Your task to perform on an android device: Clear the cart on target. Add logitech g933 to the cart on target, then select checkout. Image 0: 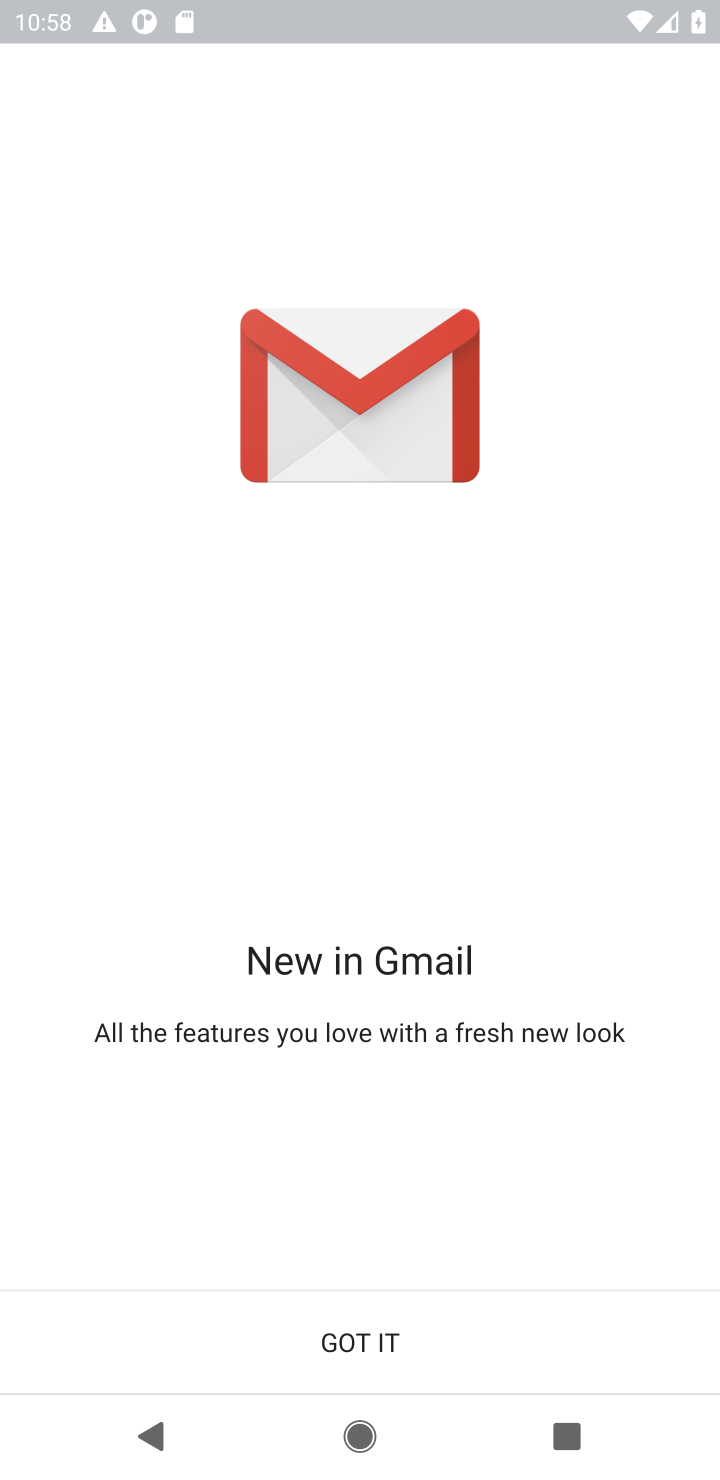
Step 0: press home button
Your task to perform on an android device: Clear the cart on target. Add logitech g933 to the cart on target, then select checkout. Image 1: 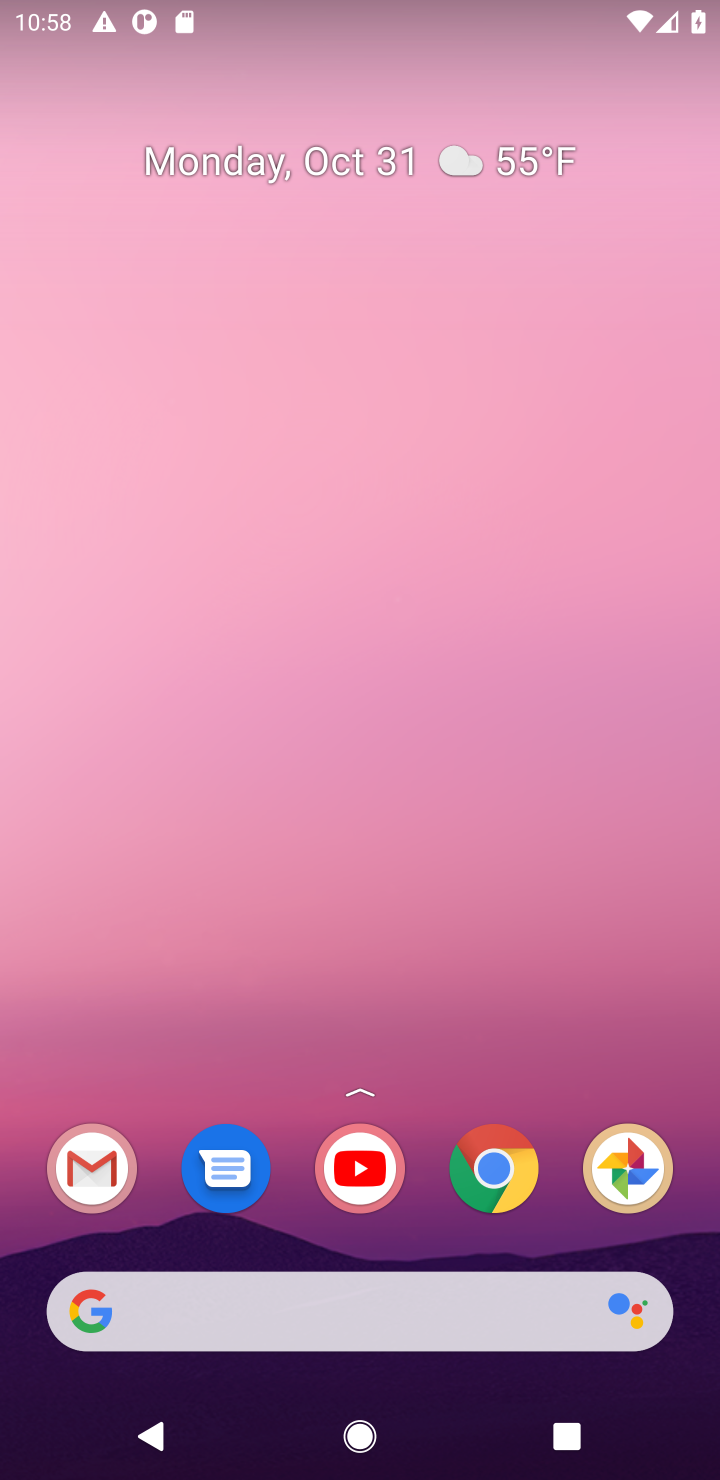
Step 1: click (475, 1177)
Your task to perform on an android device: Clear the cart on target. Add logitech g933 to the cart on target, then select checkout. Image 2: 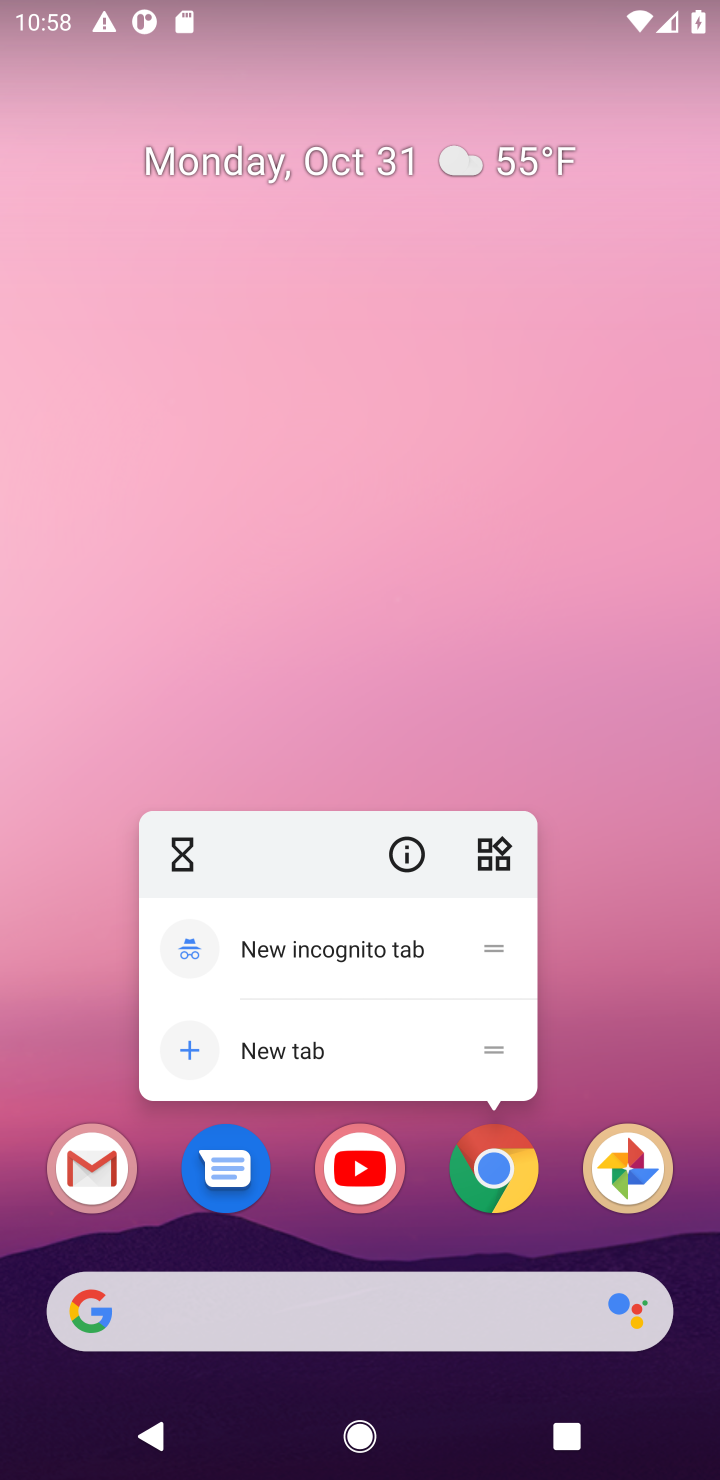
Step 2: click (504, 1174)
Your task to perform on an android device: Clear the cart on target. Add logitech g933 to the cart on target, then select checkout. Image 3: 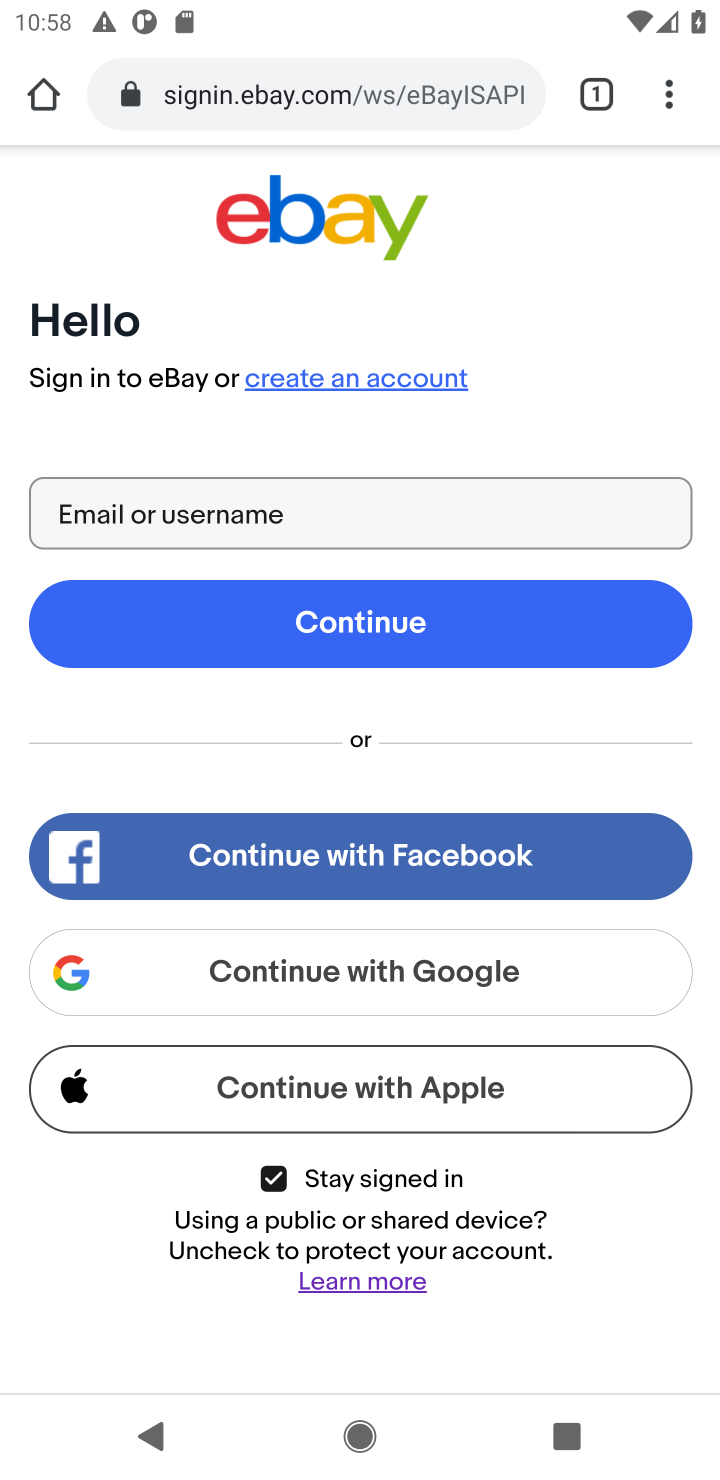
Step 3: click (319, 105)
Your task to perform on an android device: Clear the cart on target. Add logitech g933 to the cart on target, then select checkout. Image 4: 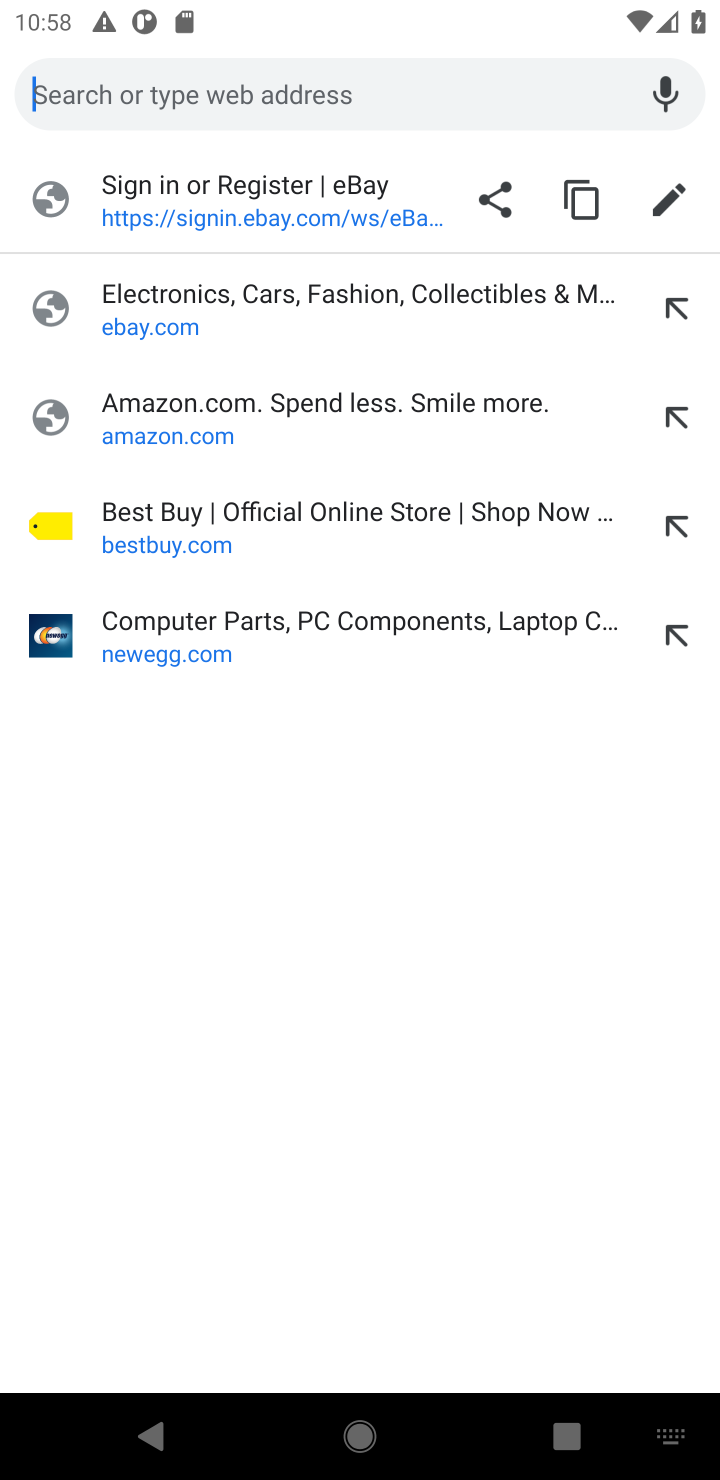
Step 4: type "target"
Your task to perform on an android device: Clear the cart on target. Add logitech g933 to the cart on target, then select checkout. Image 5: 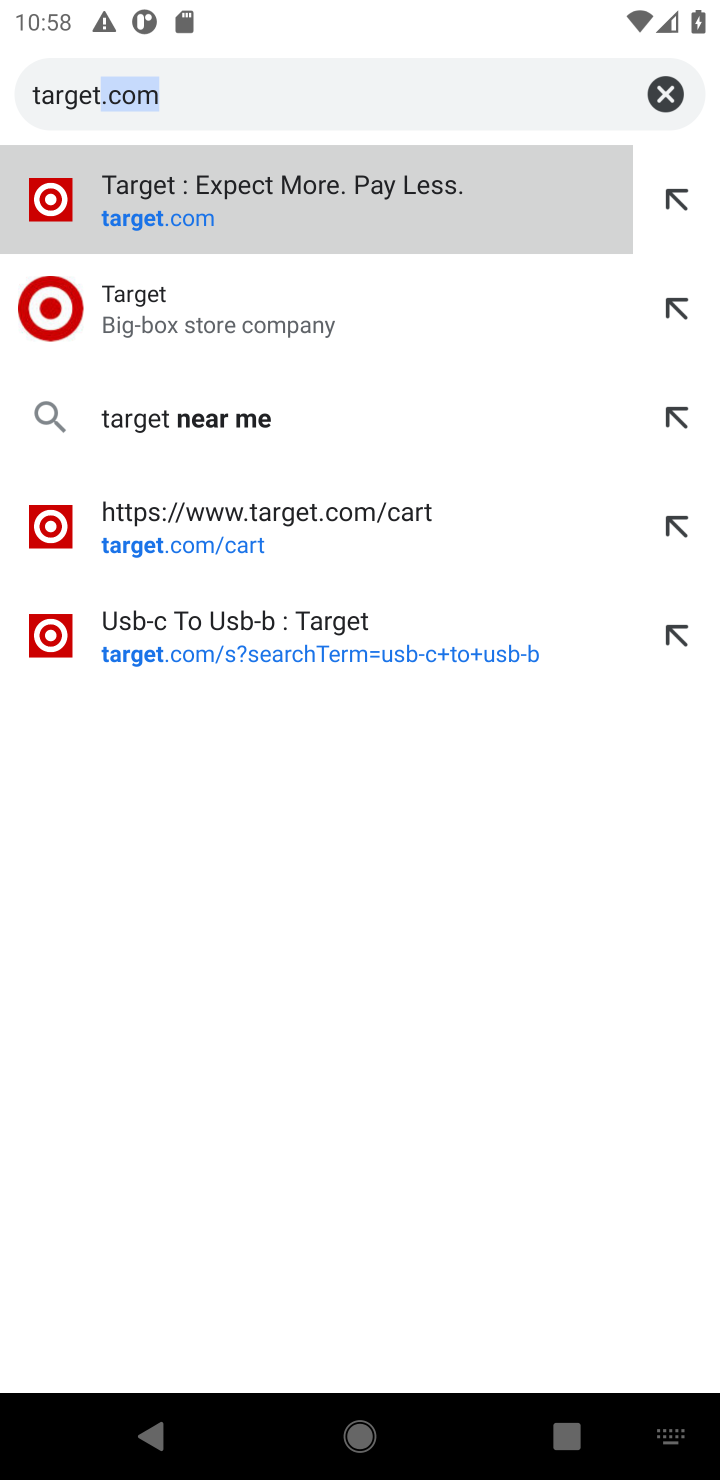
Step 5: press enter
Your task to perform on an android device: Clear the cart on target. Add logitech g933 to the cart on target, then select checkout. Image 6: 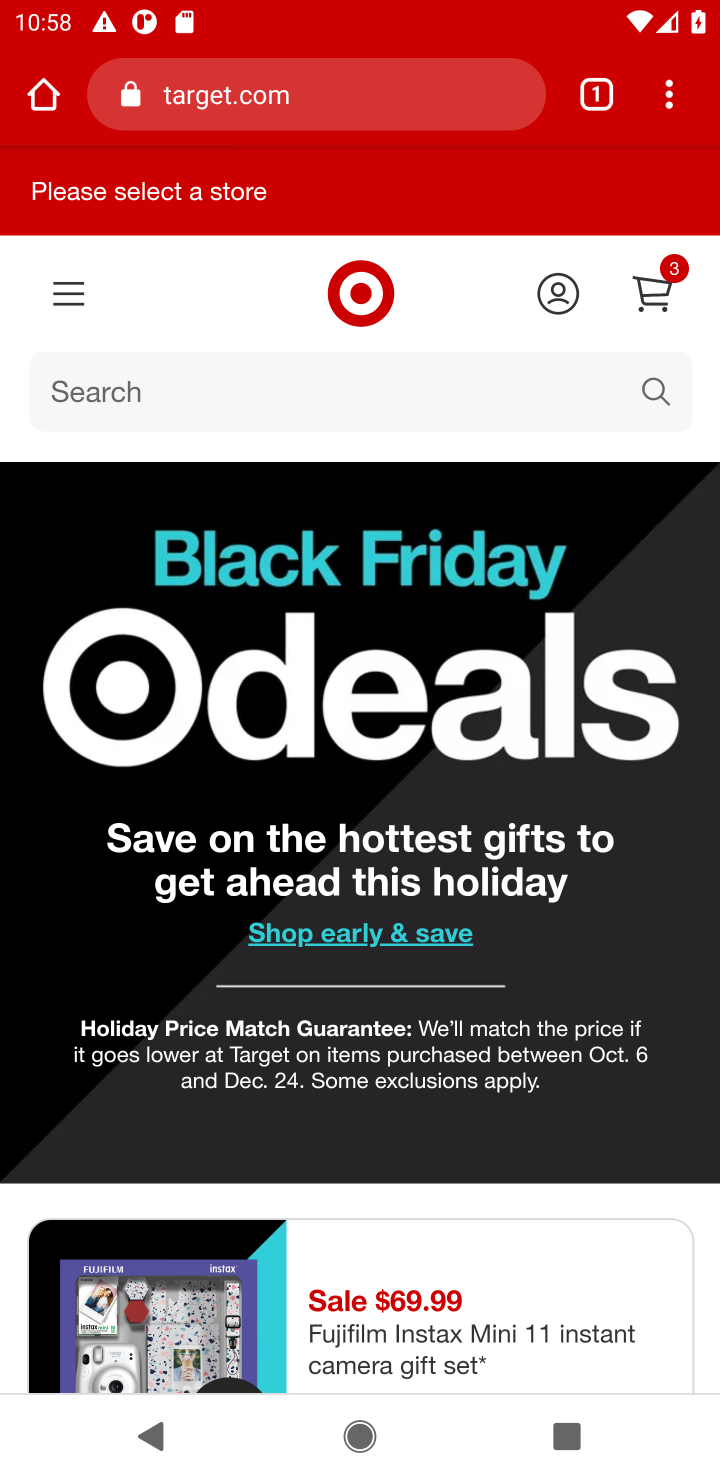
Step 6: click (279, 390)
Your task to perform on an android device: Clear the cart on target. Add logitech g933 to the cart on target, then select checkout. Image 7: 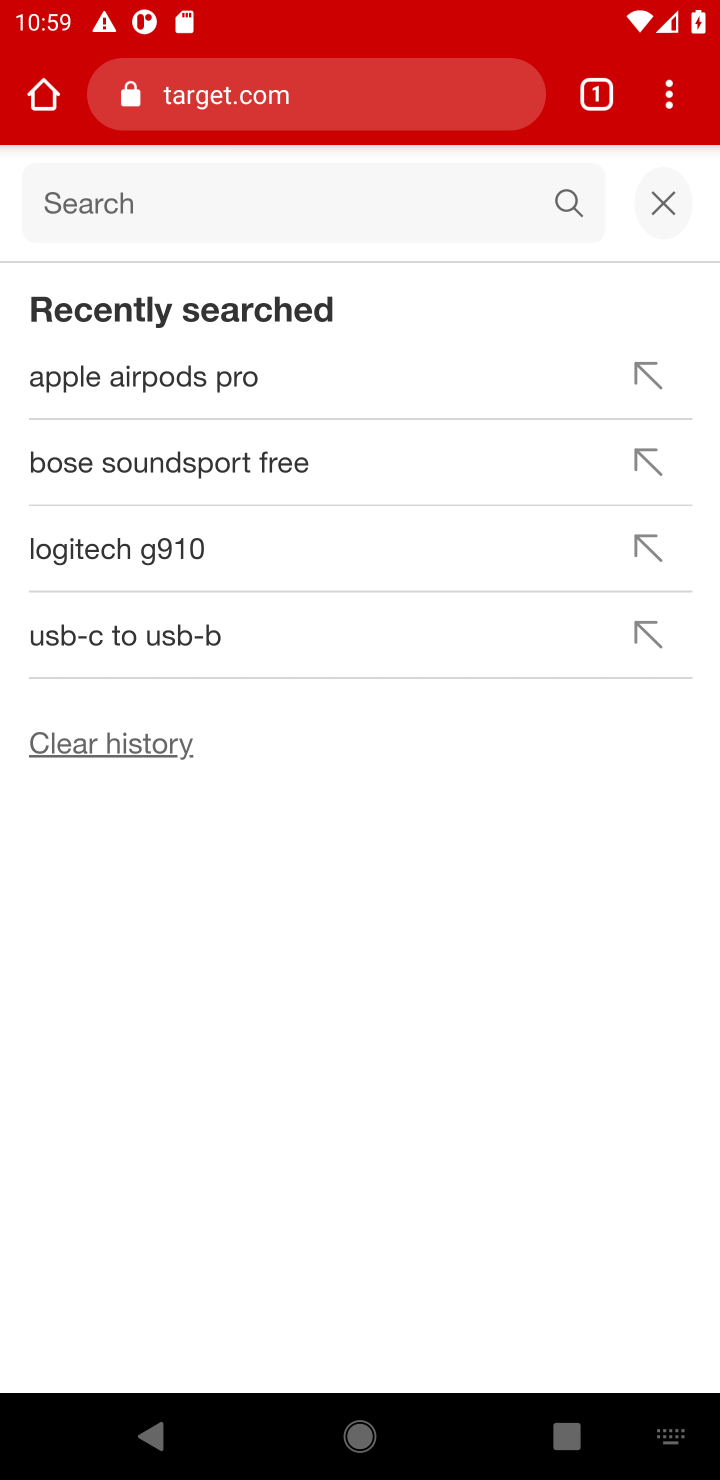
Step 7: type "logitech g933"
Your task to perform on an android device: Clear the cart on target. Add logitech g933 to the cart on target, then select checkout. Image 8: 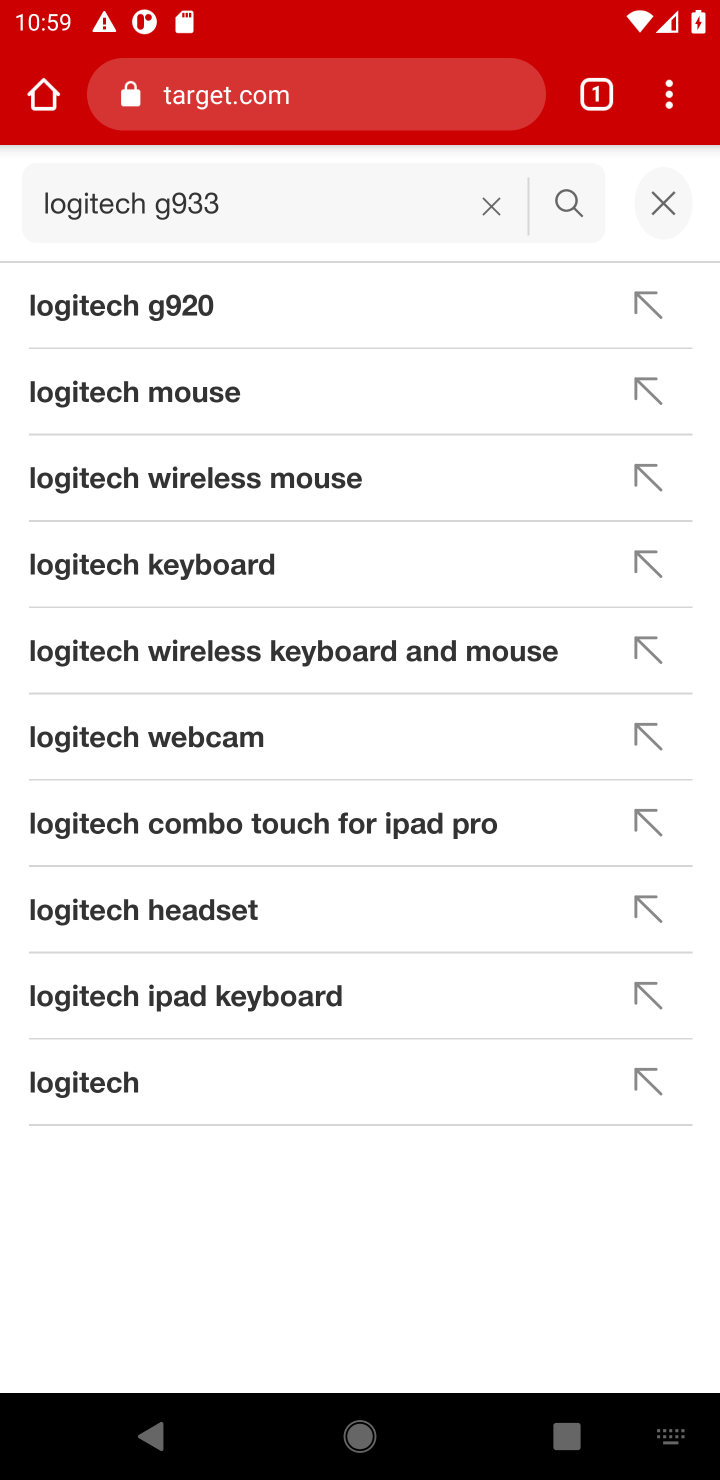
Step 8: press enter
Your task to perform on an android device: Clear the cart on target. Add logitech g933 to the cart on target, then select checkout. Image 9: 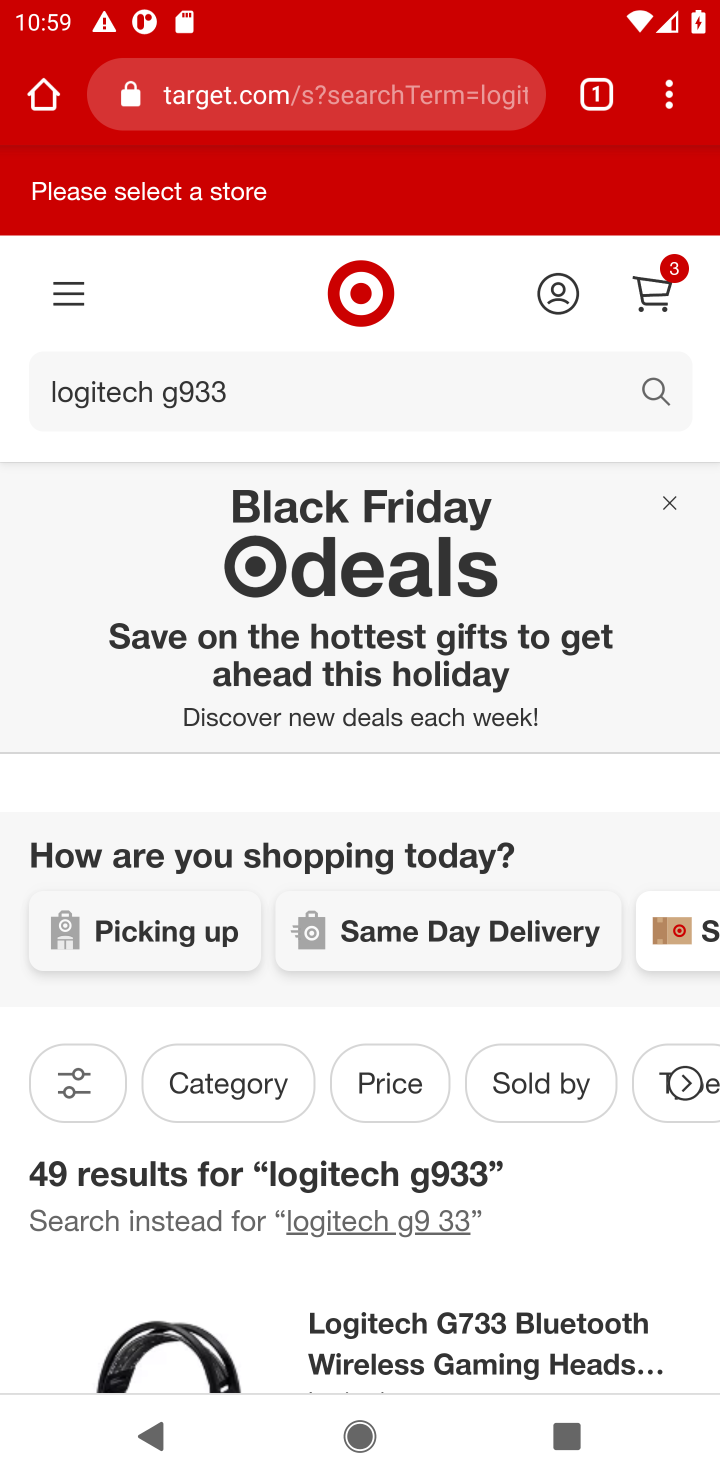
Step 9: drag from (600, 1152) to (428, 230)
Your task to perform on an android device: Clear the cart on target. Add logitech g933 to the cart on target, then select checkout. Image 10: 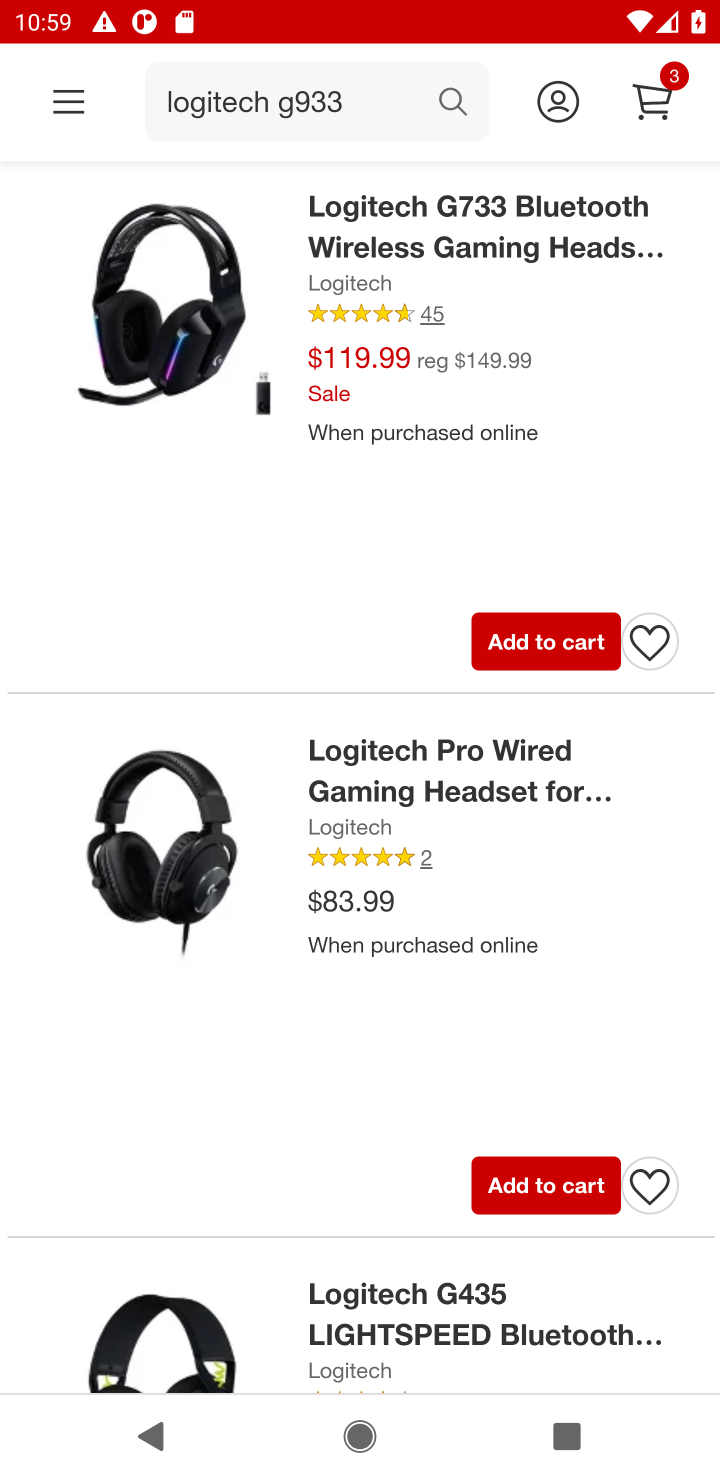
Step 10: drag from (318, 1132) to (326, 715)
Your task to perform on an android device: Clear the cart on target. Add logitech g933 to the cart on target, then select checkout. Image 11: 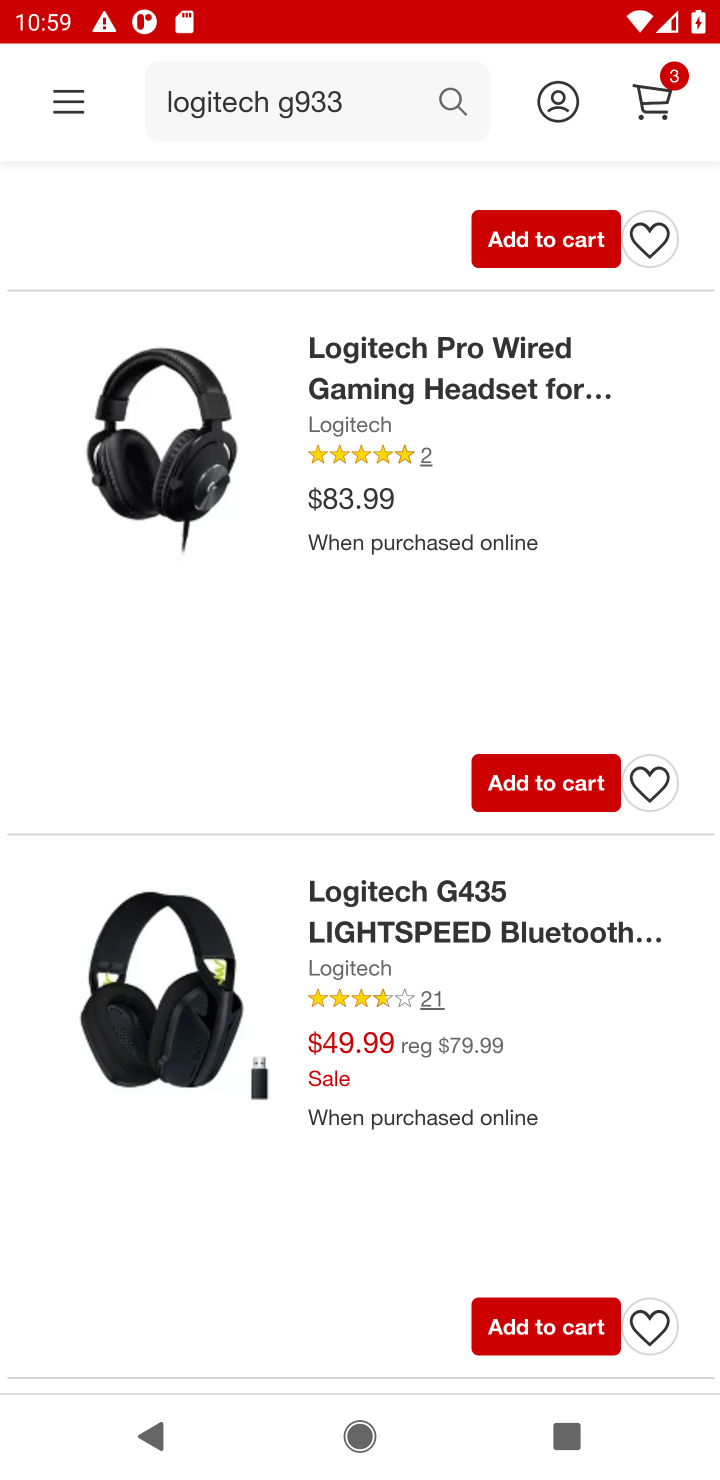
Step 11: drag from (356, 1114) to (429, 558)
Your task to perform on an android device: Clear the cart on target. Add logitech g933 to the cart on target, then select checkout. Image 12: 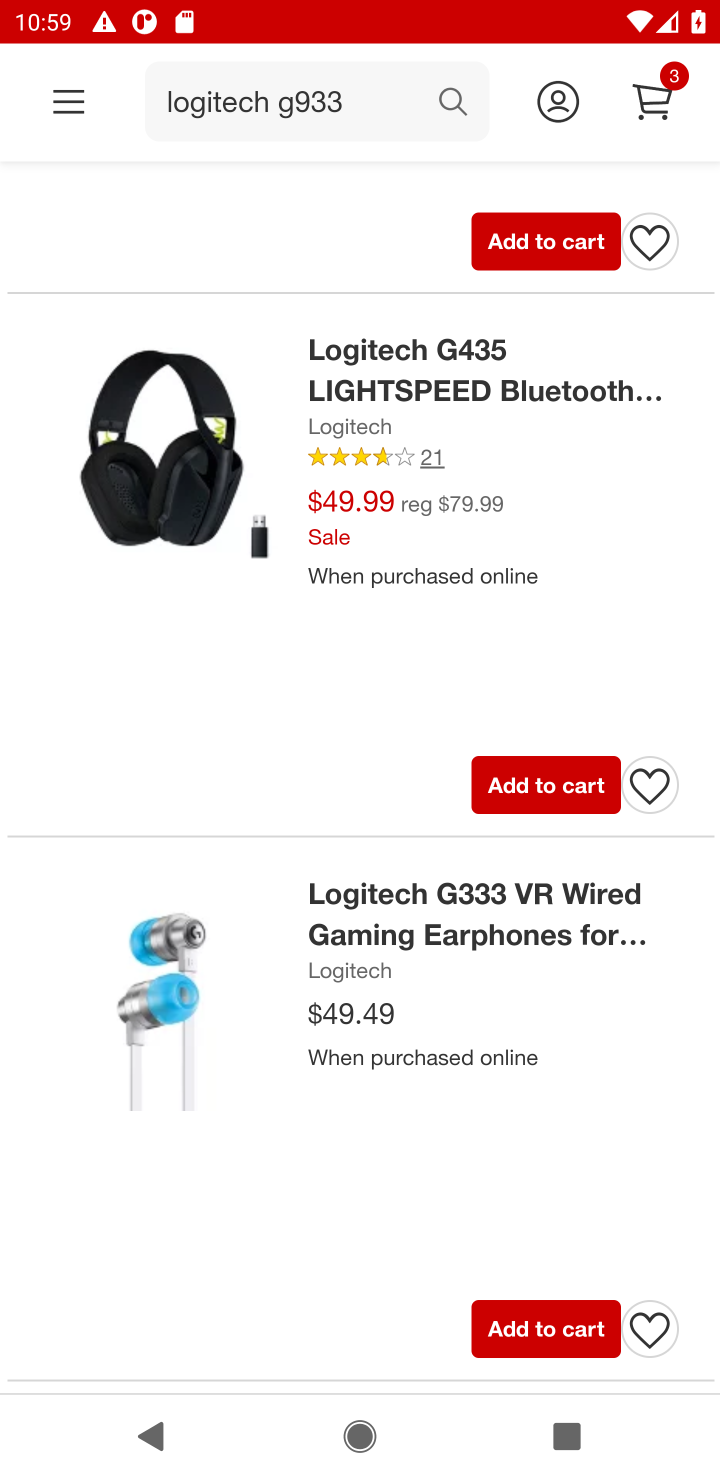
Step 12: drag from (392, 1169) to (446, 666)
Your task to perform on an android device: Clear the cart on target. Add logitech g933 to the cart on target, then select checkout. Image 13: 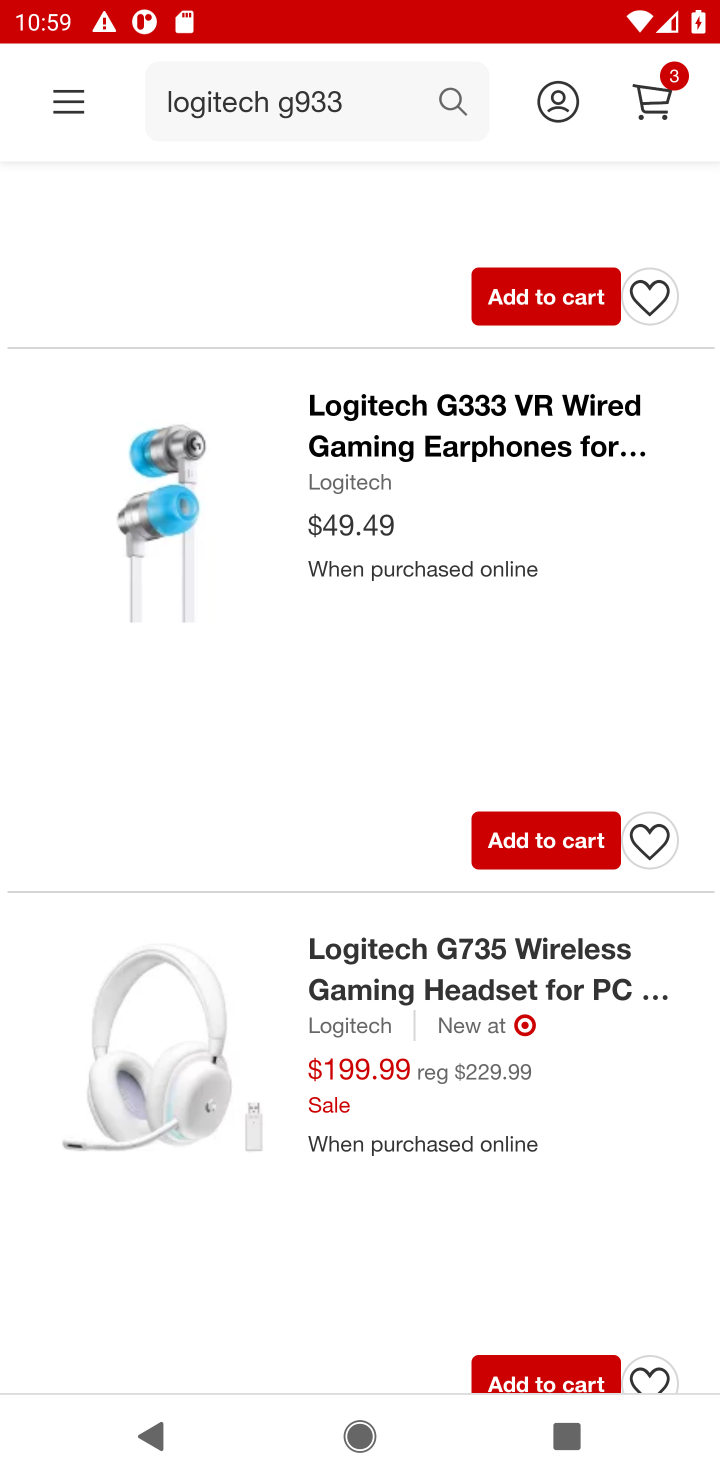
Step 13: drag from (410, 1234) to (382, 521)
Your task to perform on an android device: Clear the cart on target. Add logitech g933 to the cart on target, then select checkout. Image 14: 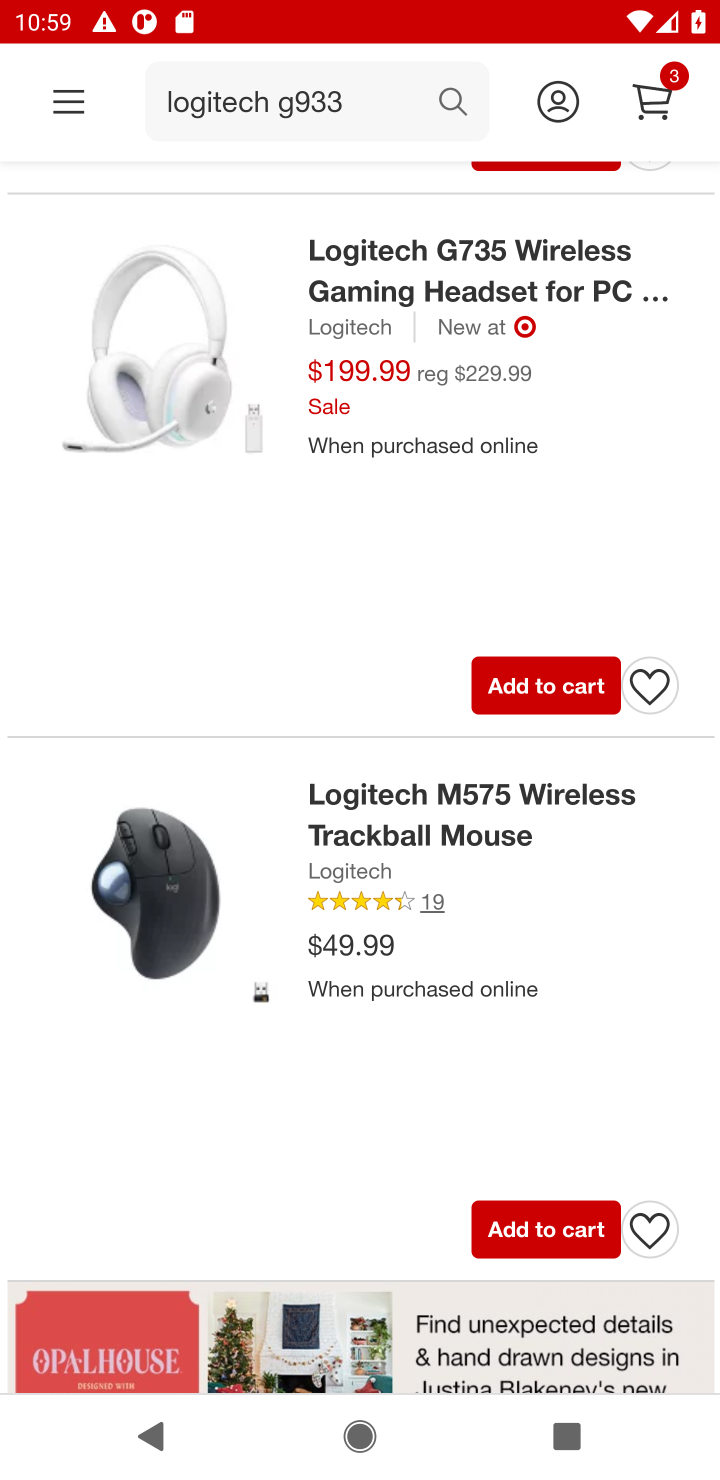
Step 14: drag from (361, 551) to (408, 1453)
Your task to perform on an android device: Clear the cart on target. Add logitech g933 to the cart on target, then select checkout. Image 15: 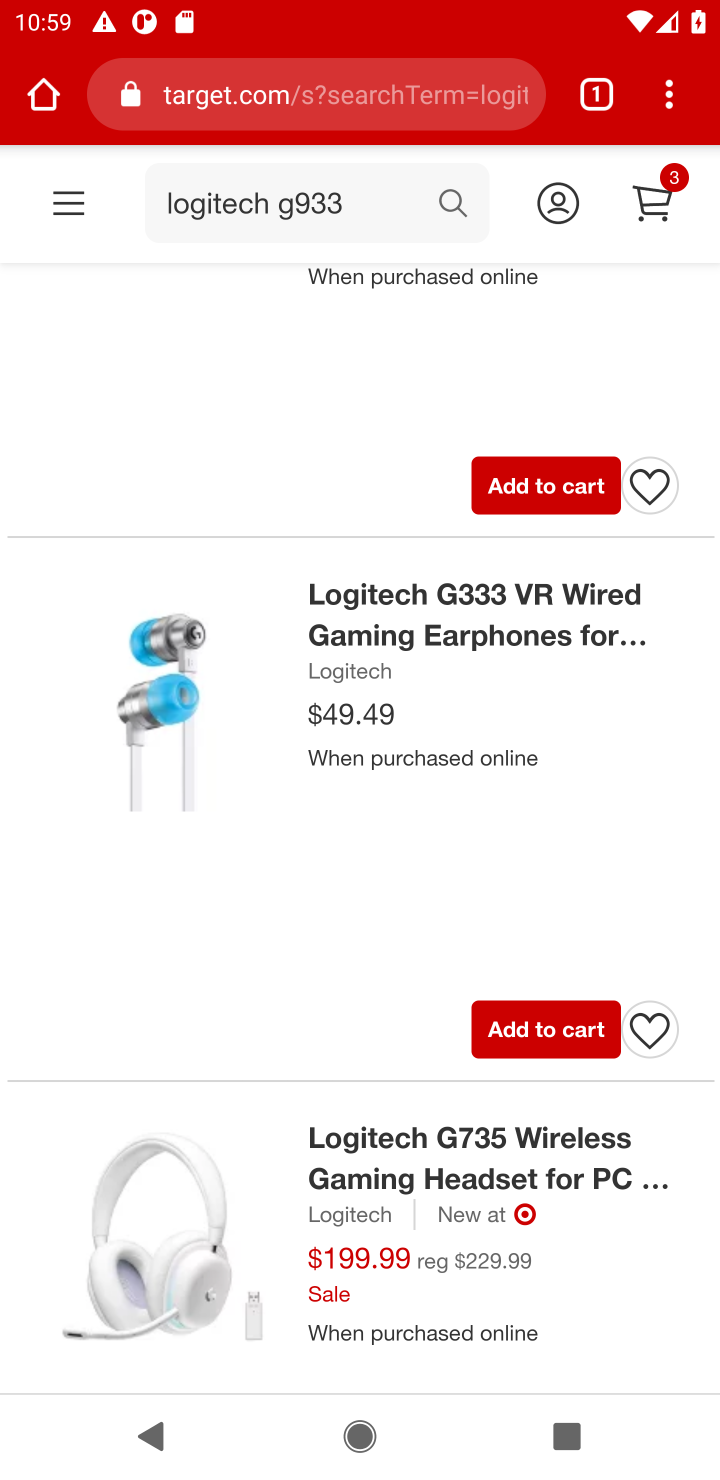
Step 15: drag from (289, 643) to (231, 1253)
Your task to perform on an android device: Clear the cart on target. Add logitech g933 to the cart on target, then select checkout. Image 16: 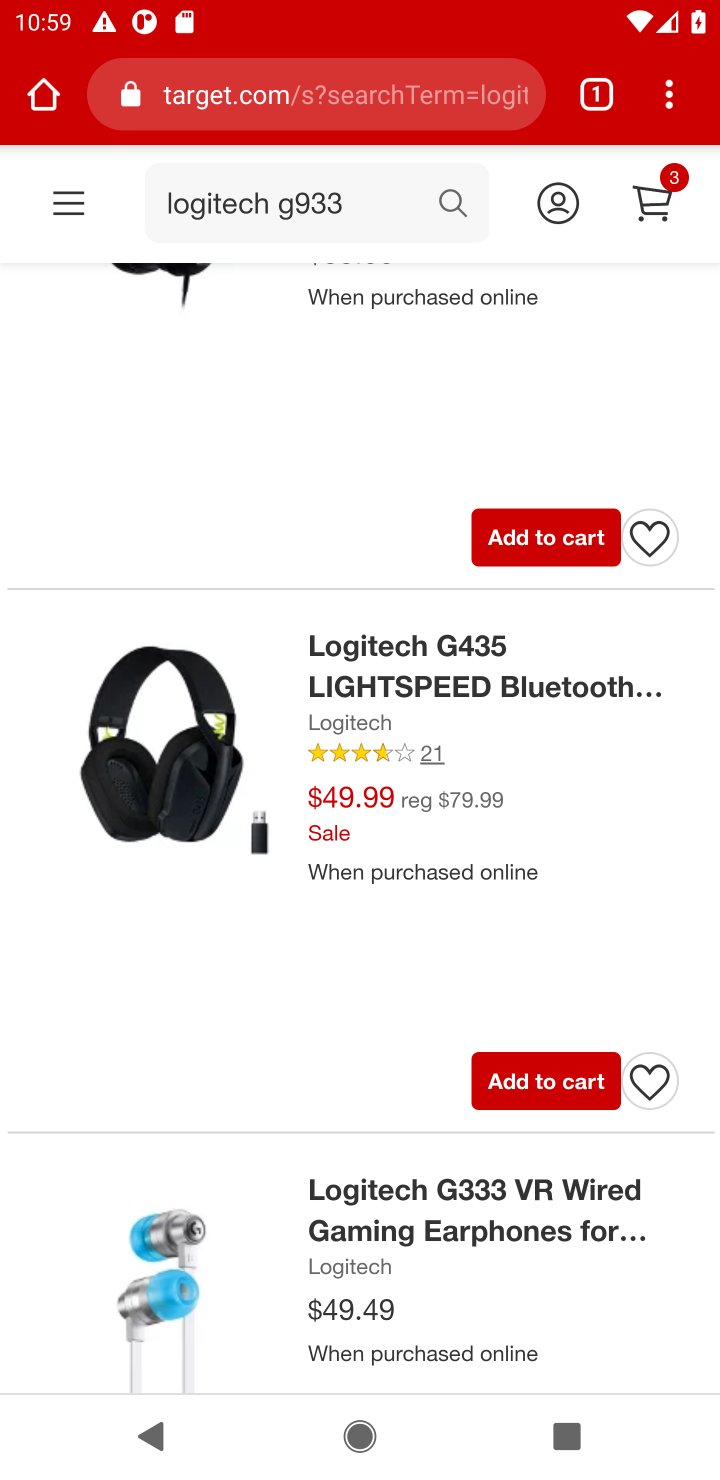
Step 16: drag from (412, 448) to (278, 1246)
Your task to perform on an android device: Clear the cart on target. Add logitech g933 to the cart on target, then select checkout. Image 17: 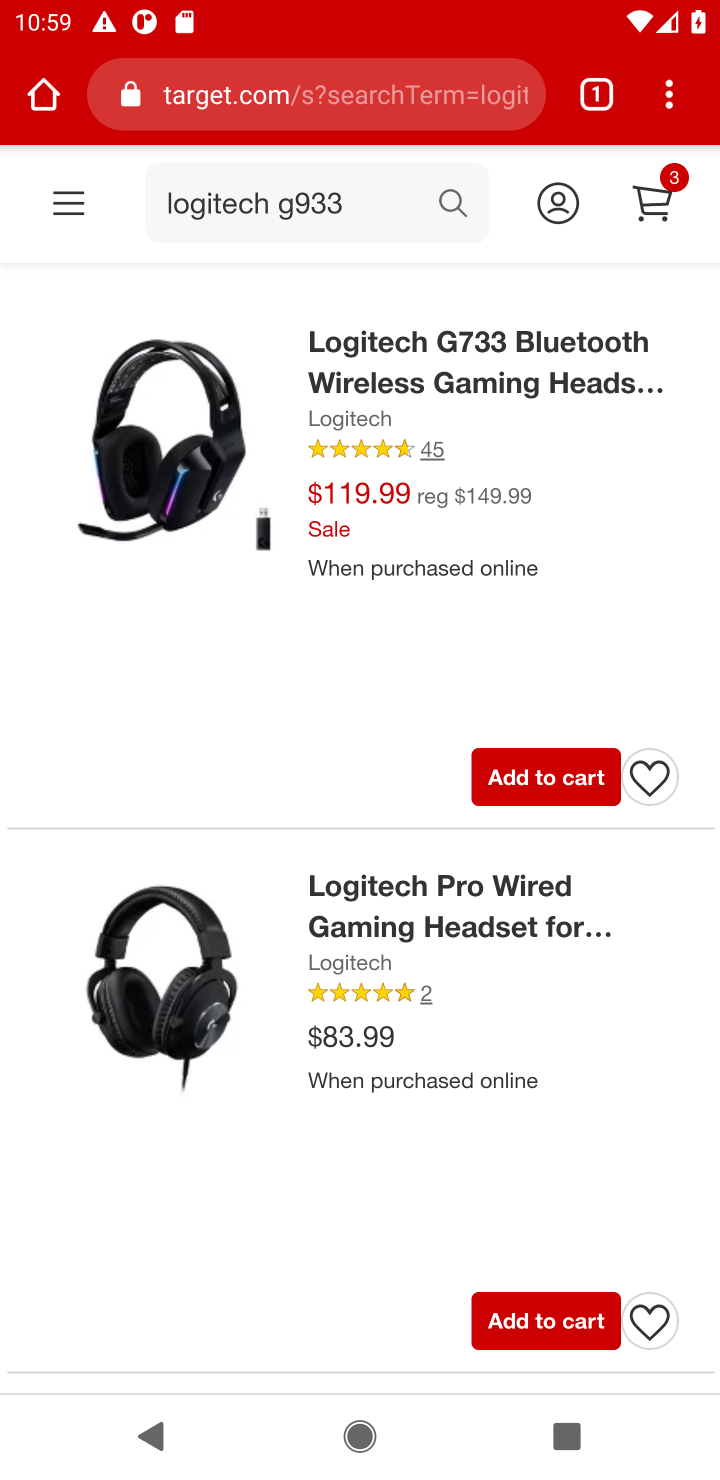
Step 17: drag from (422, 696) to (460, 1249)
Your task to perform on an android device: Clear the cart on target. Add logitech g933 to the cart on target, then select checkout. Image 18: 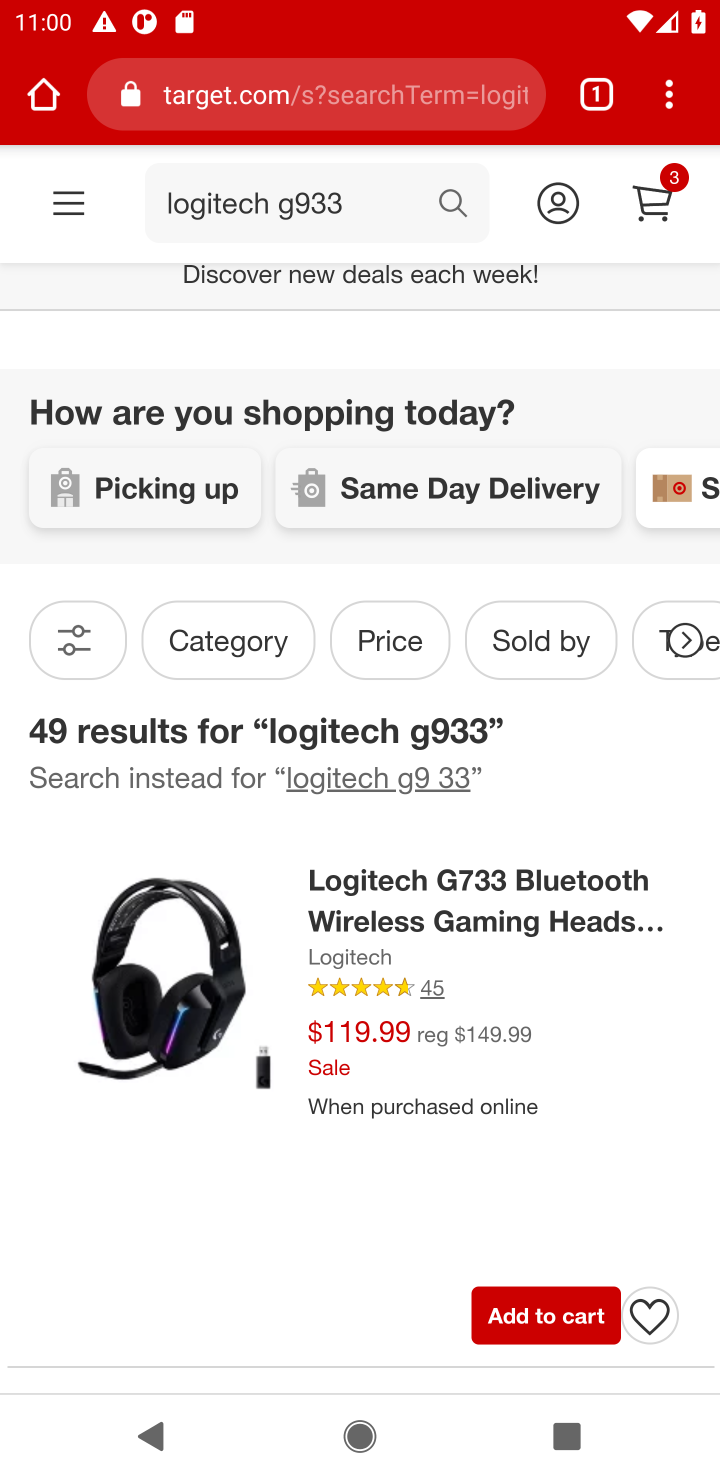
Step 18: click (414, 778)
Your task to perform on an android device: Clear the cart on target. Add logitech g933 to the cart on target, then select checkout. Image 19: 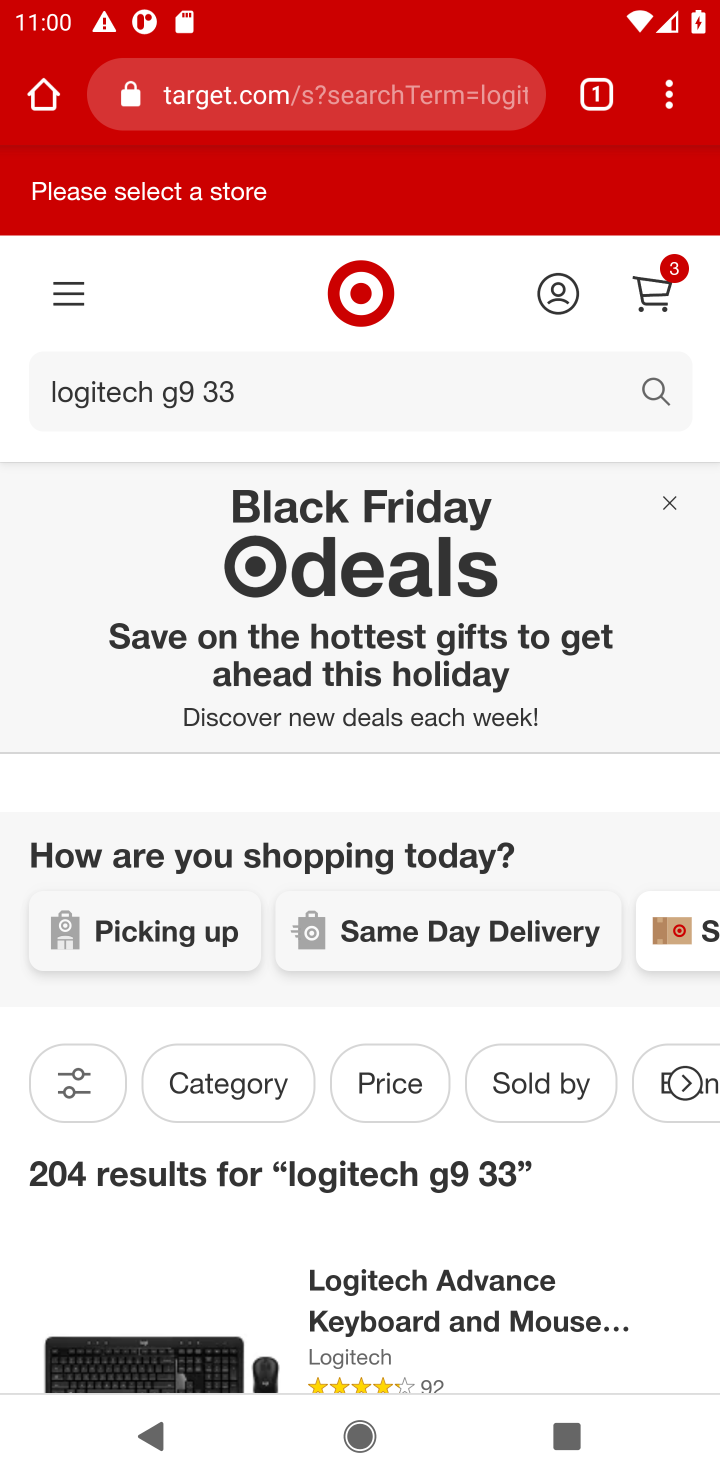
Step 19: drag from (578, 1225) to (489, 854)
Your task to perform on an android device: Clear the cart on target. Add logitech g933 to the cart on target, then select checkout. Image 20: 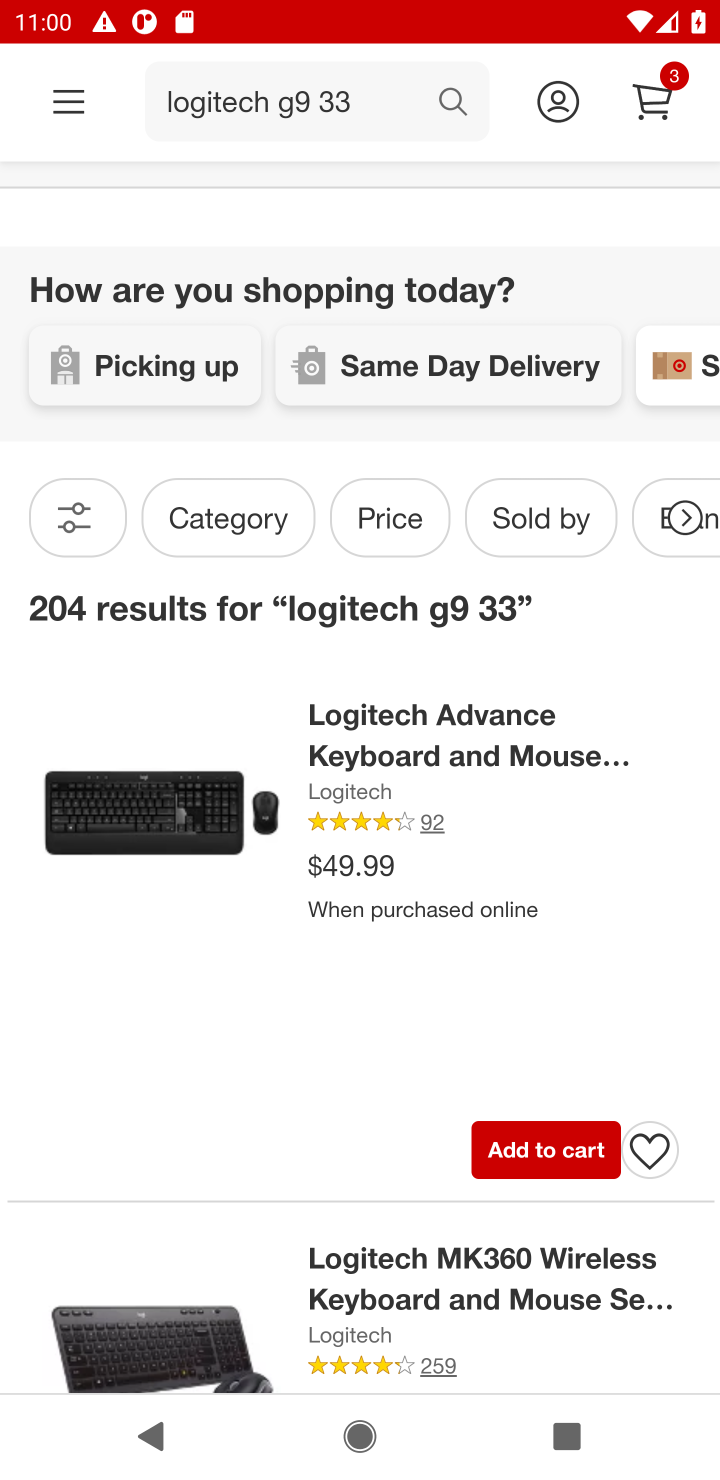
Step 20: drag from (596, 1272) to (515, 833)
Your task to perform on an android device: Clear the cart on target. Add logitech g933 to the cart on target, then select checkout. Image 21: 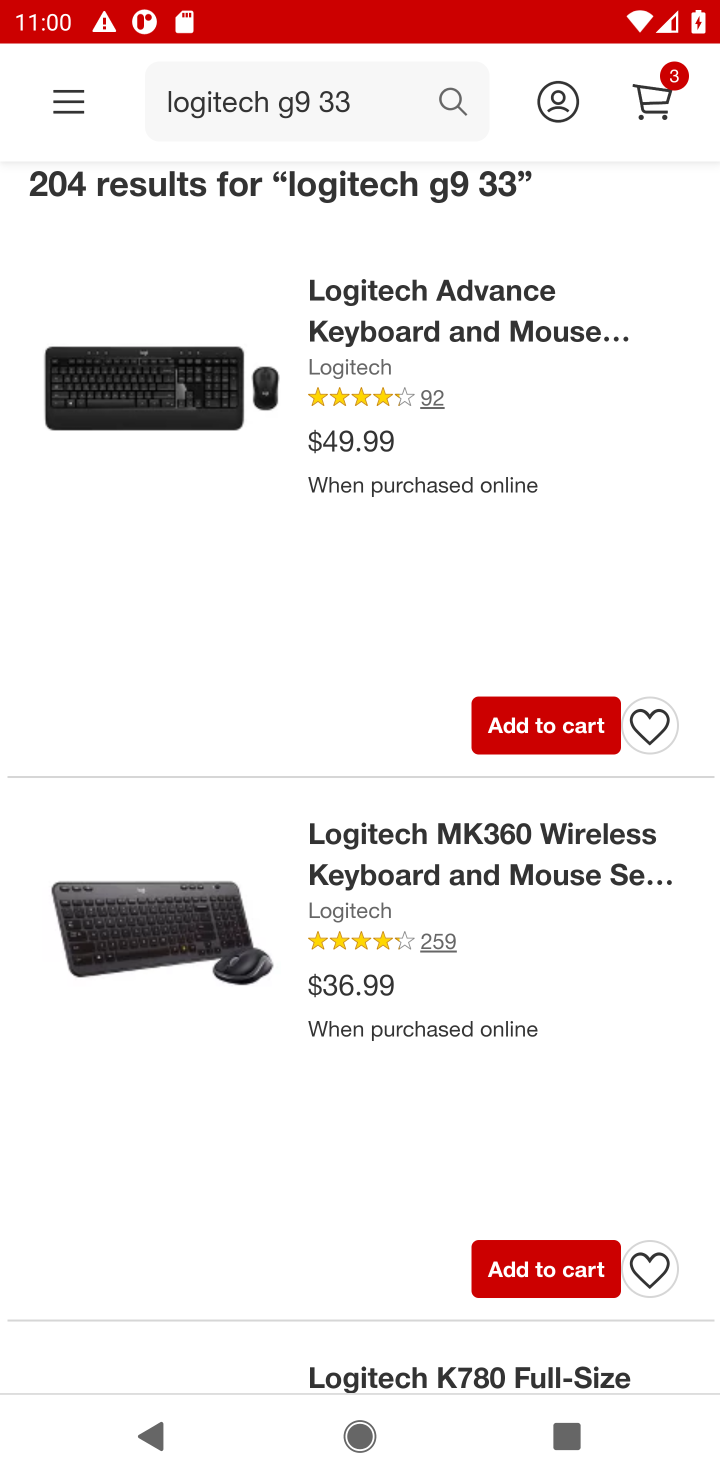
Step 21: drag from (544, 877) to (525, 373)
Your task to perform on an android device: Clear the cart on target. Add logitech g933 to the cart on target, then select checkout. Image 22: 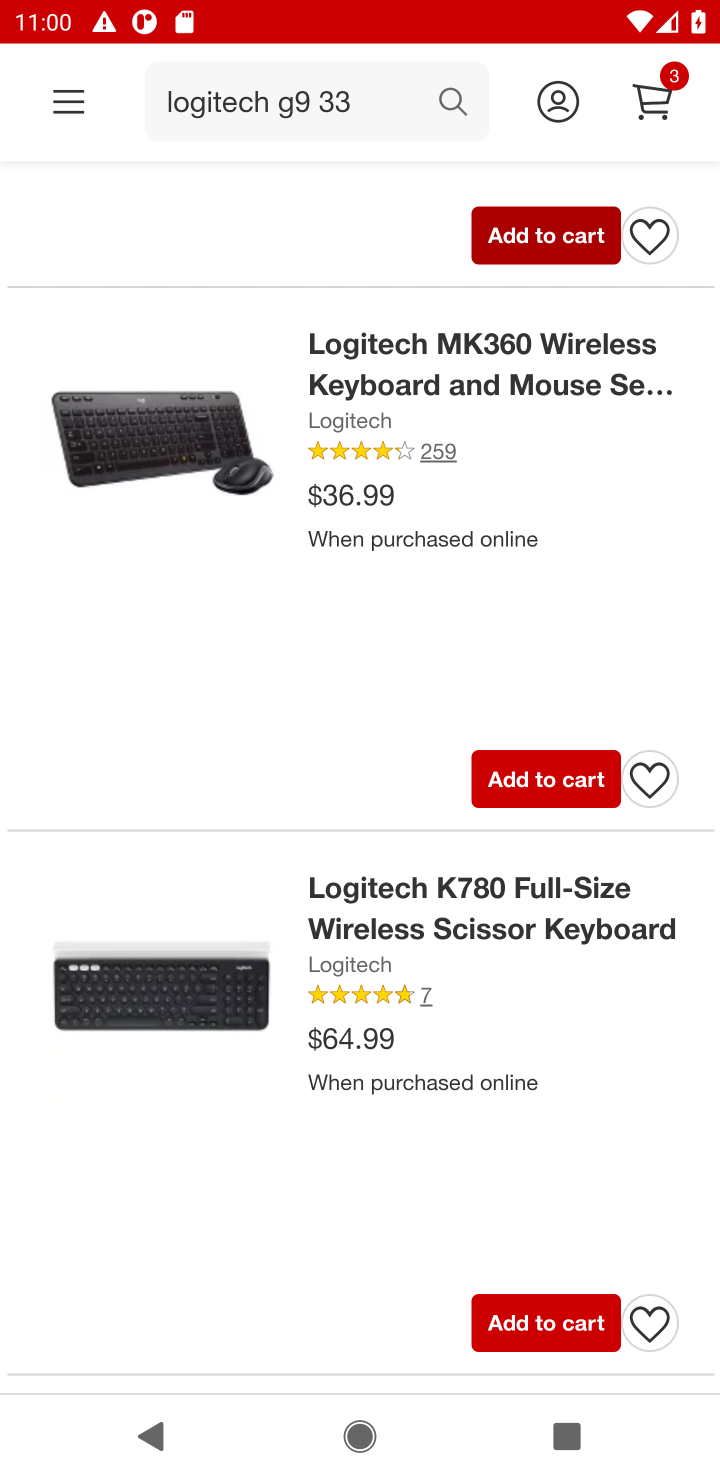
Step 22: drag from (418, 669) to (508, 1463)
Your task to perform on an android device: Clear the cart on target. Add logitech g933 to the cart on target, then select checkout. Image 23: 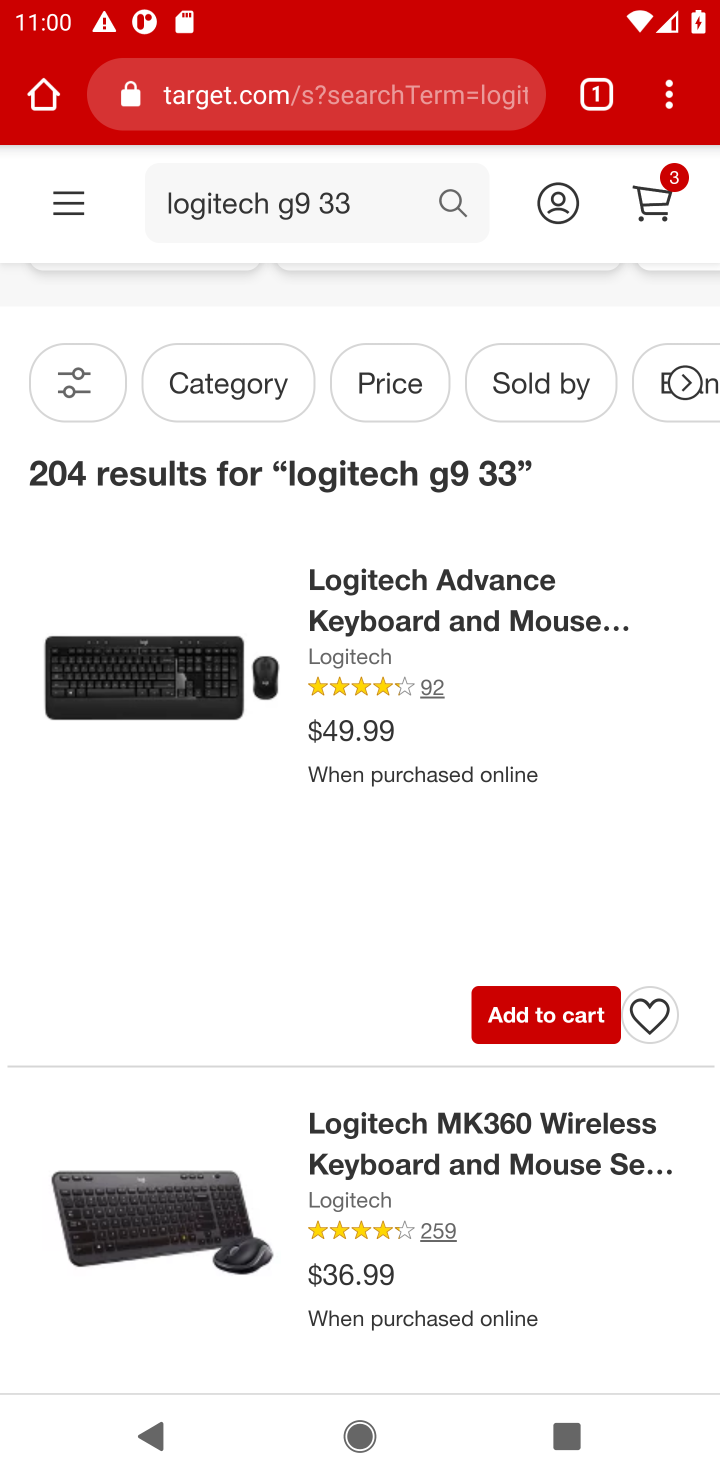
Step 23: click (420, 641)
Your task to perform on an android device: Clear the cart on target. Add logitech g933 to the cart on target, then select checkout. Image 24: 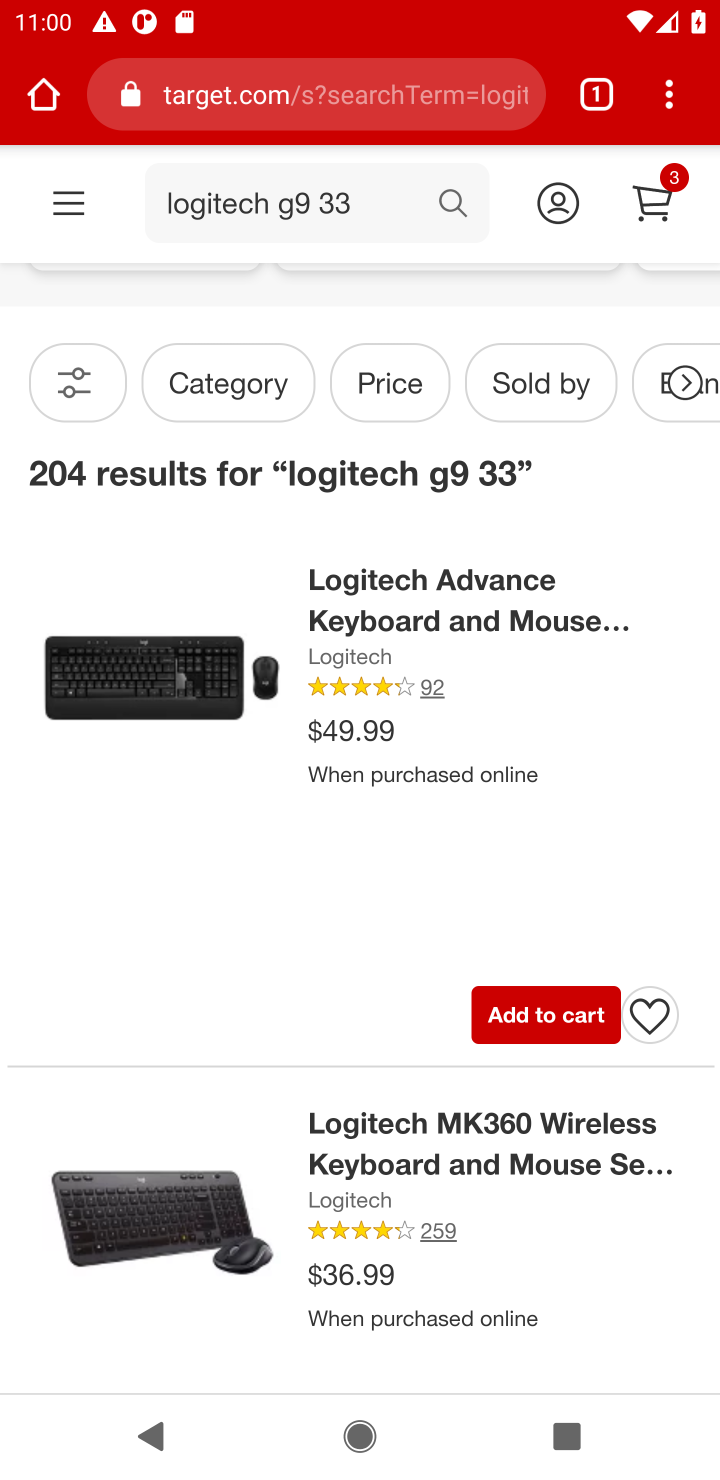
Step 24: click (409, 607)
Your task to perform on an android device: Clear the cart on target. Add logitech g933 to the cart on target, then select checkout. Image 25: 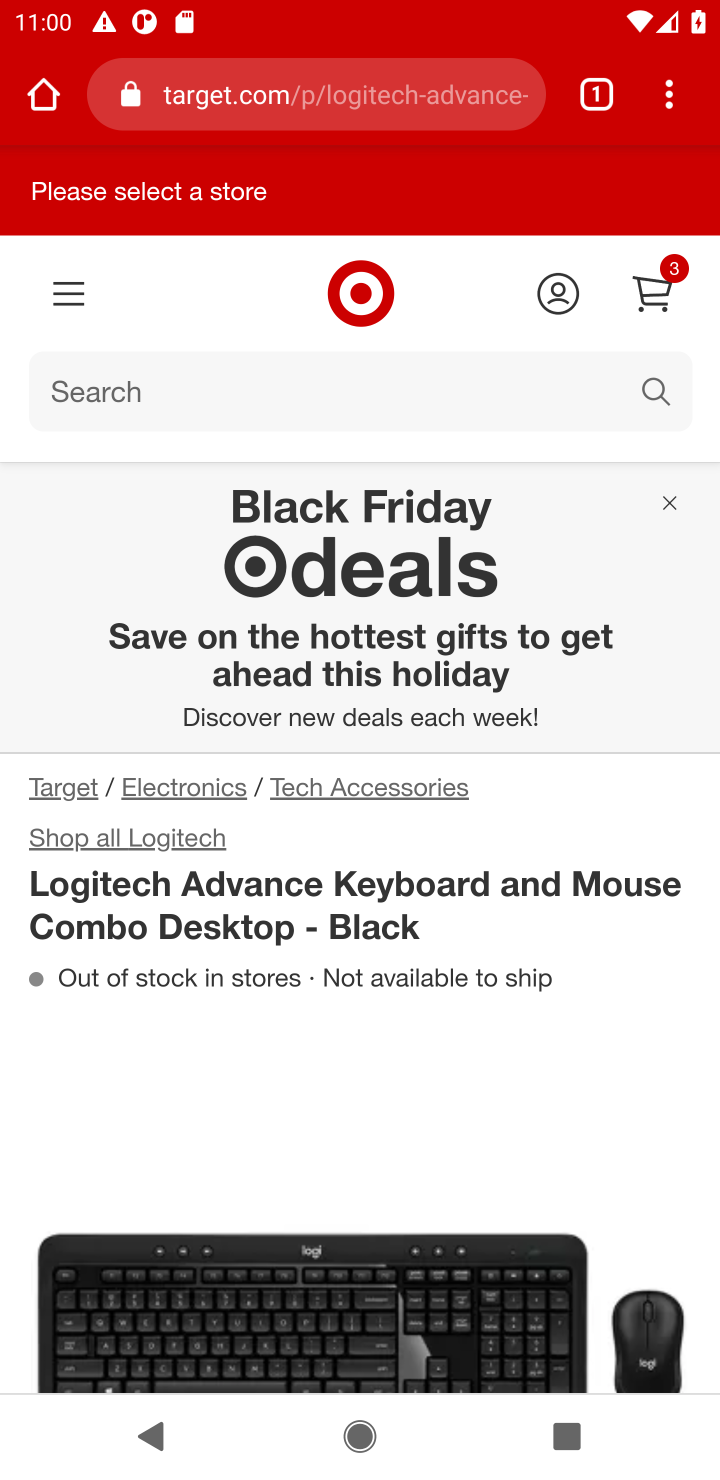
Step 25: task complete